Your task to perform on an android device: turn off priority inbox in the gmail app Image 0: 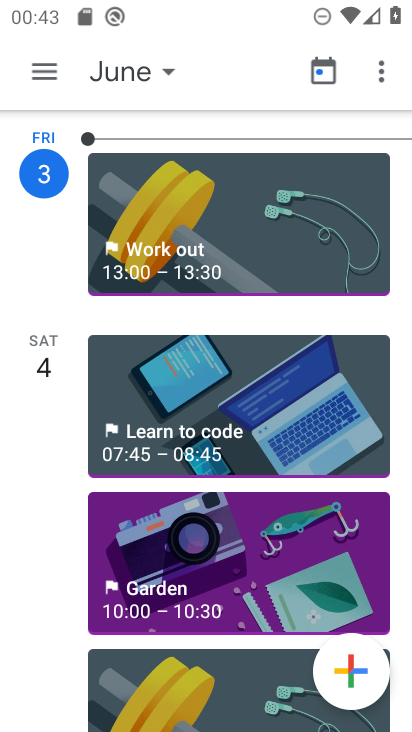
Step 0: press home button
Your task to perform on an android device: turn off priority inbox in the gmail app Image 1: 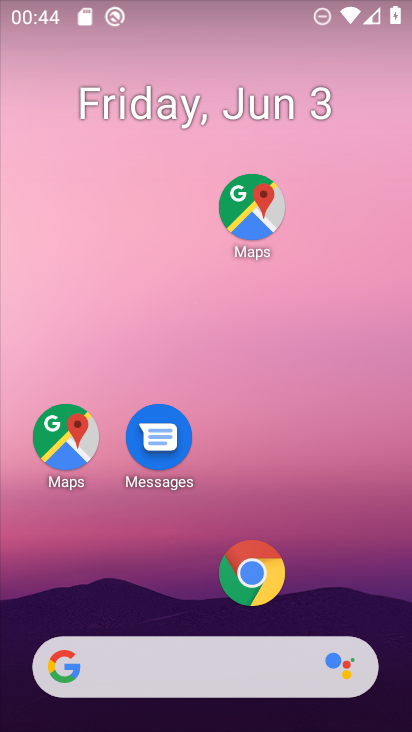
Step 1: drag from (303, 587) to (207, 122)
Your task to perform on an android device: turn off priority inbox in the gmail app Image 2: 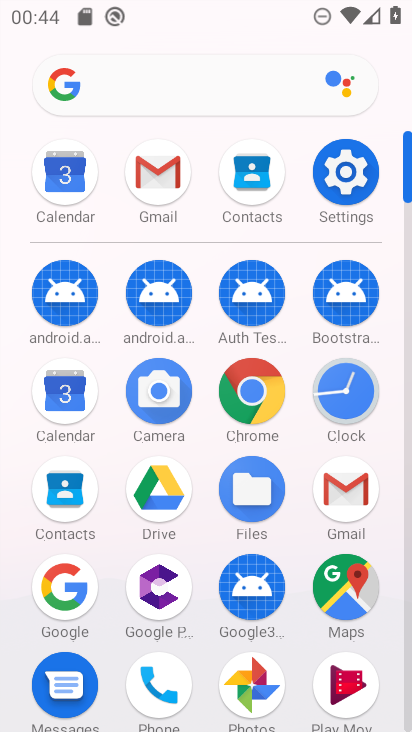
Step 2: click (158, 175)
Your task to perform on an android device: turn off priority inbox in the gmail app Image 3: 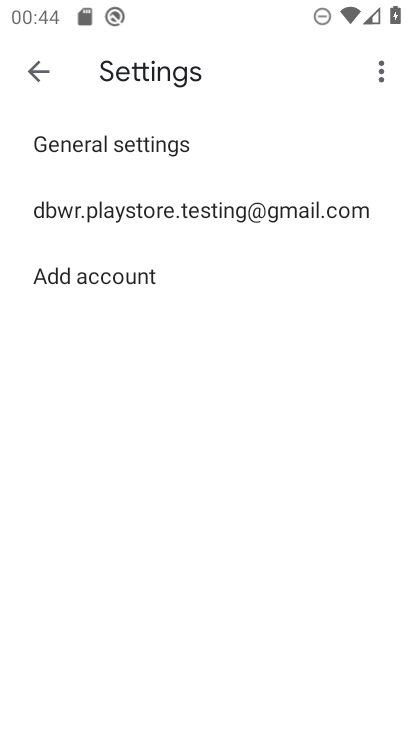
Step 3: click (139, 215)
Your task to perform on an android device: turn off priority inbox in the gmail app Image 4: 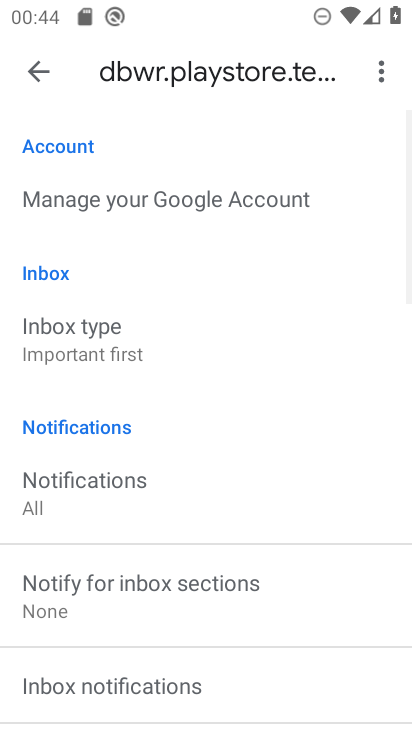
Step 4: click (102, 351)
Your task to perform on an android device: turn off priority inbox in the gmail app Image 5: 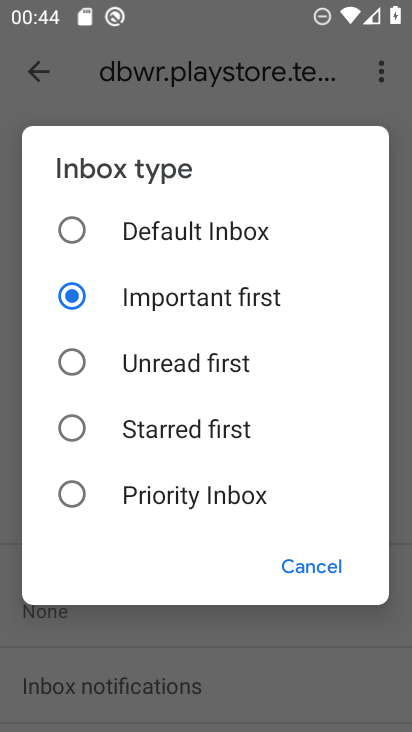
Step 5: click (75, 487)
Your task to perform on an android device: turn off priority inbox in the gmail app Image 6: 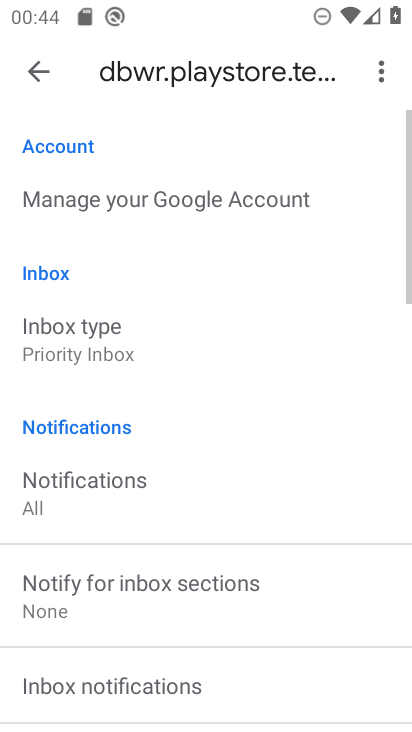
Step 6: click (86, 333)
Your task to perform on an android device: turn off priority inbox in the gmail app Image 7: 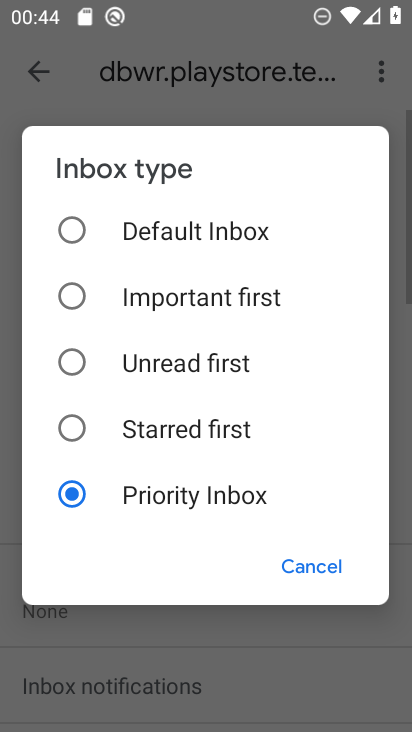
Step 7: click (64, 227)
Your task to perform on an android device: turn off priority inbox in the gmail app Image 8: 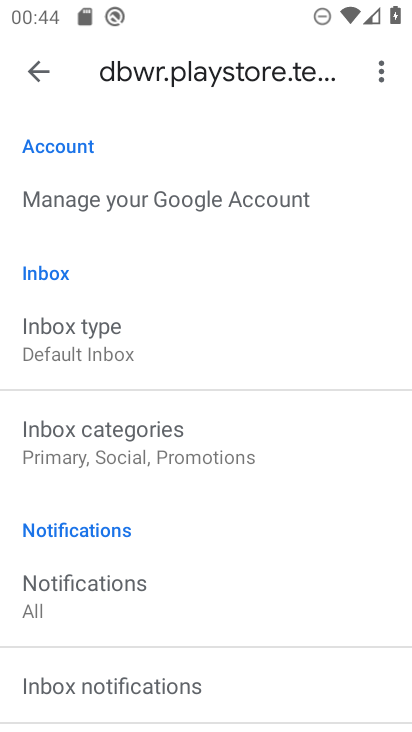
Step 8: task complete